Your task to perform on an android device: manage bookmarks in the chrome app Image 0: 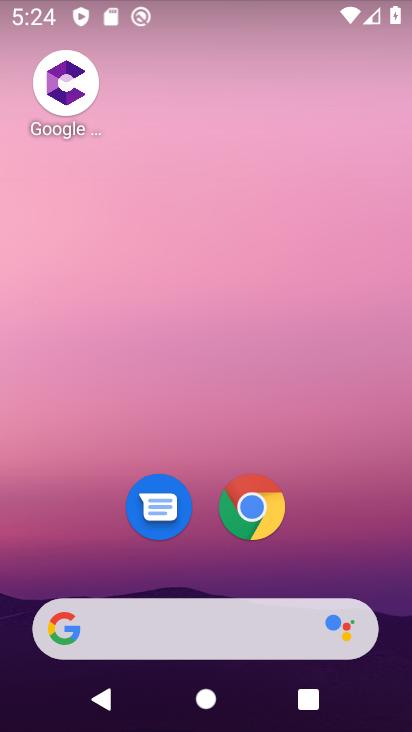
Step 0: click (275, 504)
Your task to perform on an android device: manage bookmarks in the chrome app Image 1: 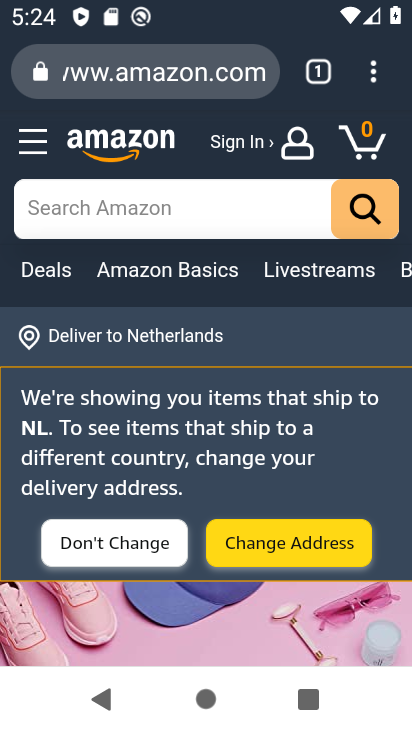
Step 1: task complete